Your task to perform on an android device: toggle sleep mode Image 0: 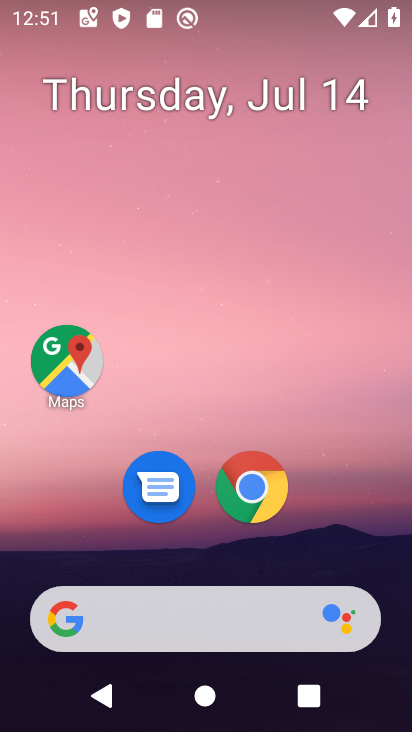
Step 0: drag from (241, 624) to (226, 217)
Your task to perform on an android device: toggle sleep mode Image 1: 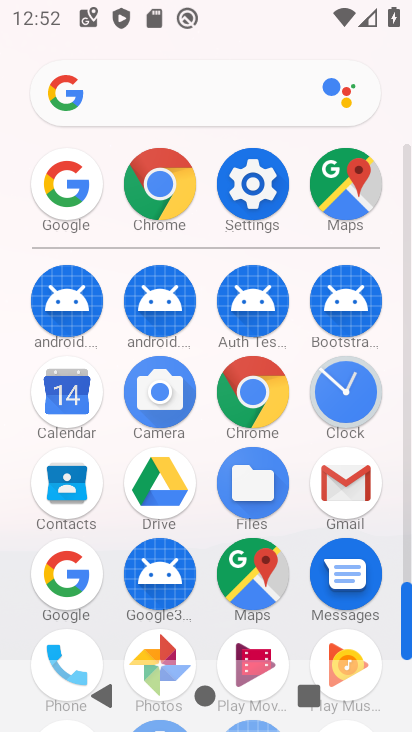
Step 1: click (265, 186)
Your task to perform on an android device: toggle sleep mode Image 2: 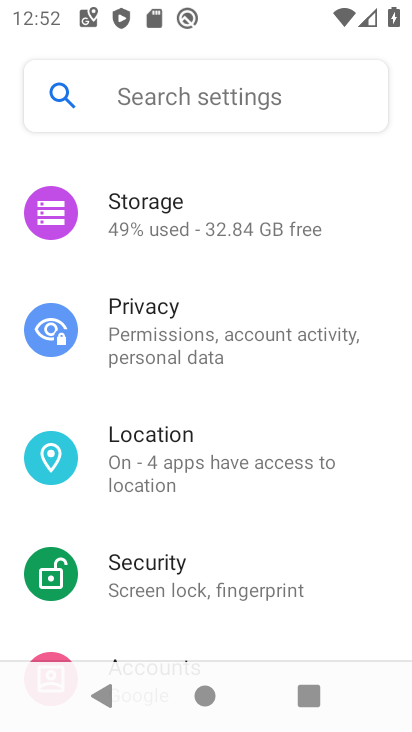
Step 2: drag from (178, 472) to (197, 177)
Your task to perform on an android device: toggle sleep mode Image 3: 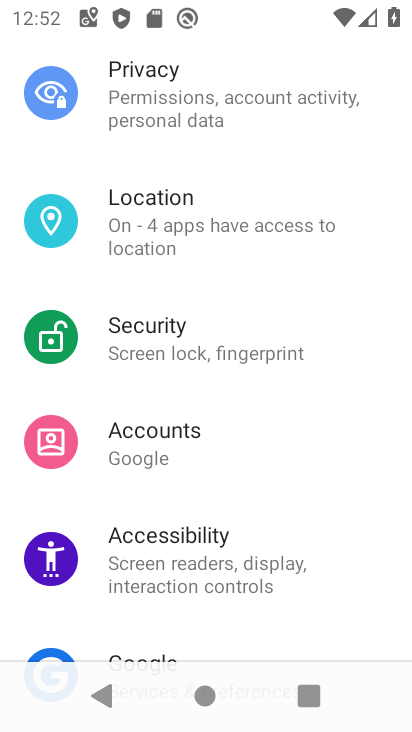
Step 3: drag from (169, 257) to (175, 682)
Your task to perform on an android device: toggle sleep mode Image 4: 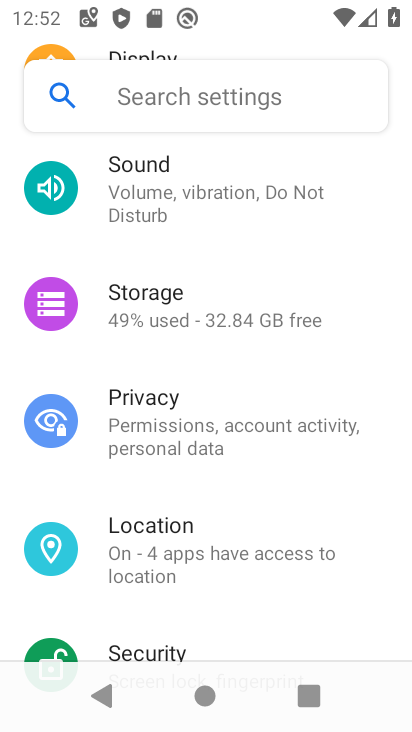
Step 4: drag from (182, 228) to (160, 590)
Your task to perform on an android device: toggle sleep mode Image 5: 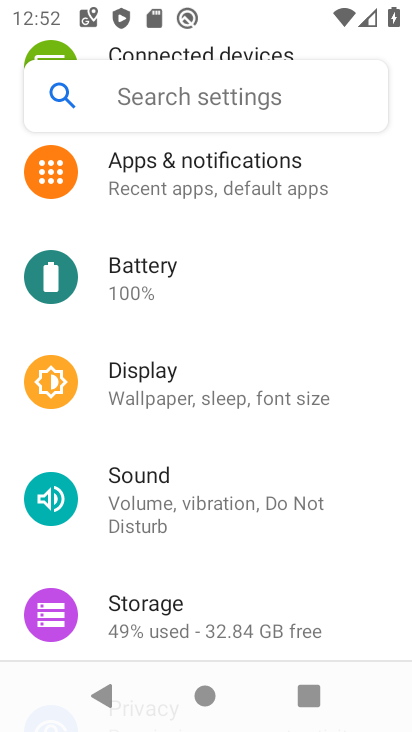
Step 5: click (183, 400)
Your task to perform on an android device: toggle sleep mode Image 6: 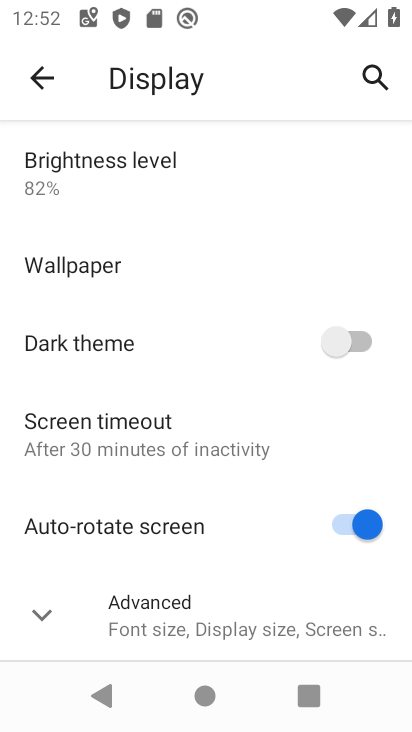
Step 6: click (108, 611)
Your task to perform on an android device: toggle sleep mode Image 7: 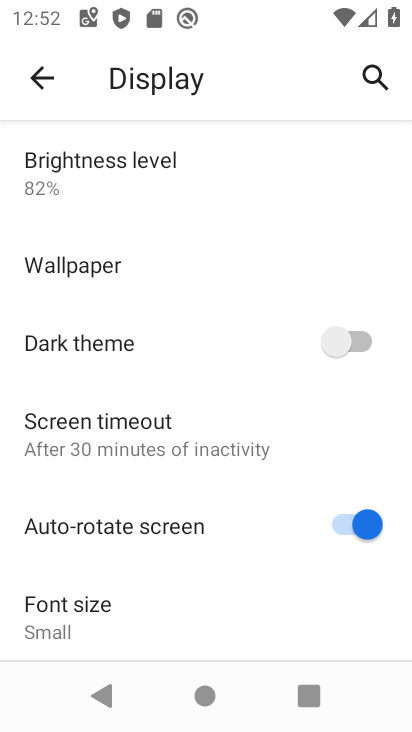
Step 7: task complete